Your task to perform on an android device: turn off location Image 0: 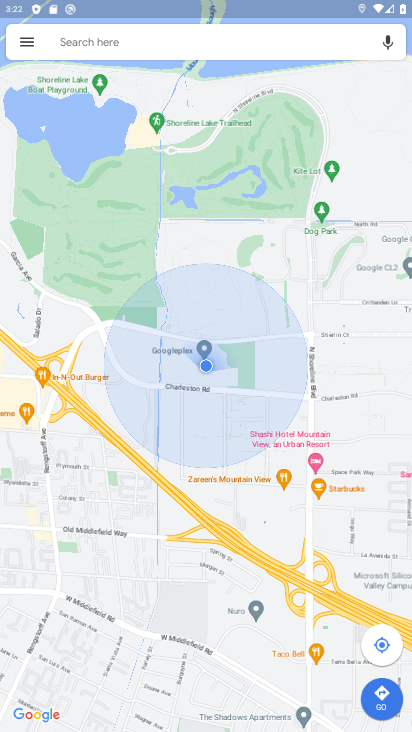
Step 0: press home button
Your task to perform on an android device: turn off location Image 1: 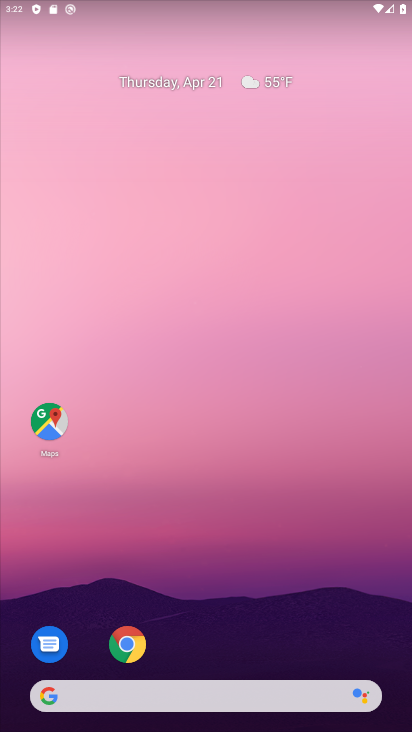
Step 1: drag from (205, 665) to (375, 54)
Your task to perform on an android device: turn off location Image 2: 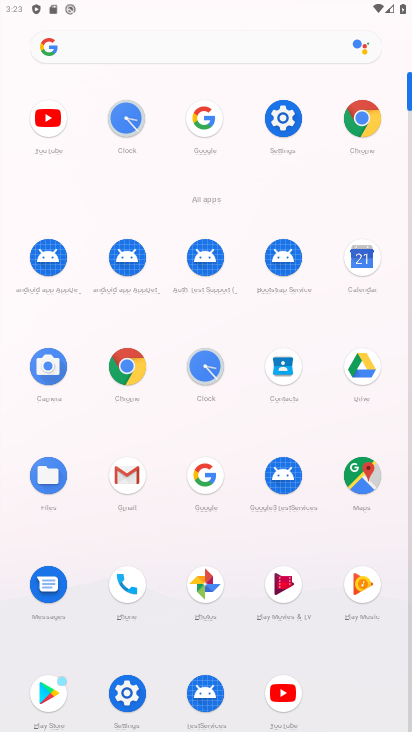
Step 2: click (128, 688)
Your task to perform on an android device: turn off location Image 3: 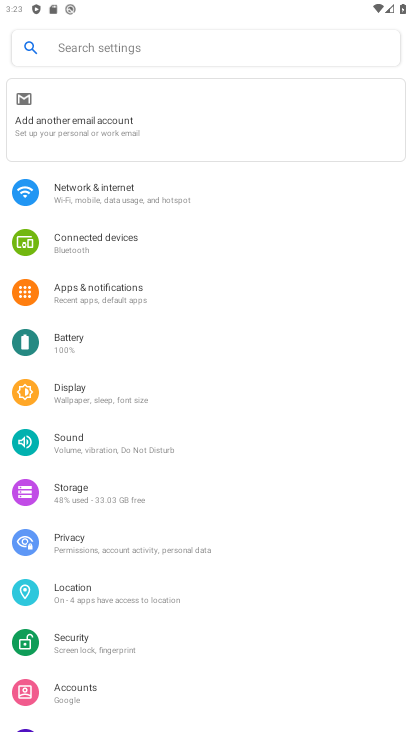
Step 3: click (98, 584)
Your task to perform on an android device: turn off location Image 4: 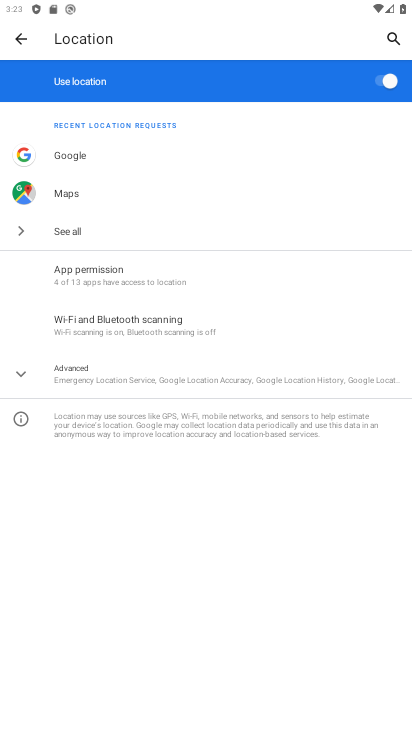
Step 4: click (390, 71)
Your task to perform on an android device: turn off location Image 5: 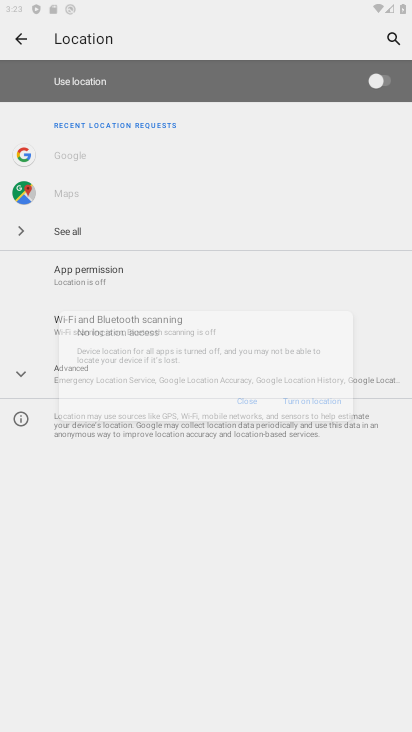
Step 5: task complete